Your task to perform on an android device: uninstall "TextNow: Call + Text Unlimited" Image 0: 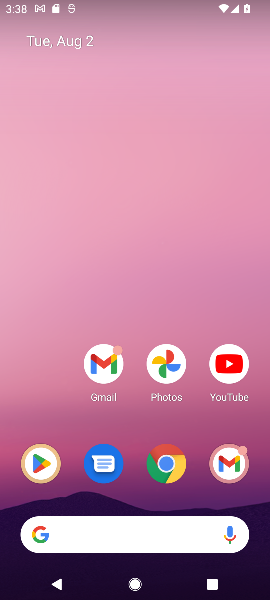
Step 0: press home button
Your task to perform on an android device: uninstall "TextNow: Call + Text Unlimited" Image 1: 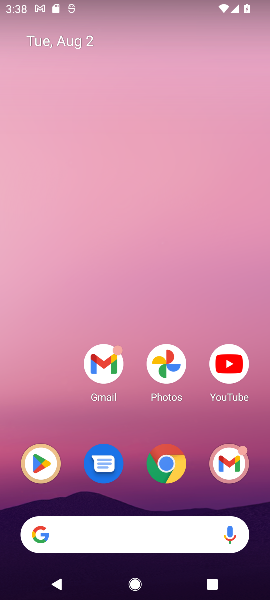
Step 1: click (41, 461)
Your task to perform on an android device: uninstall "TextNow: Call + Text Unlimited" Image 2: 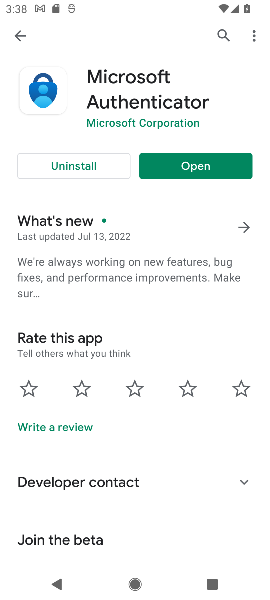
Step 2: click (221, 30)
Your task to perform on an android device: uninstall "TextNow: Call + Text Unlimited" Image 3: 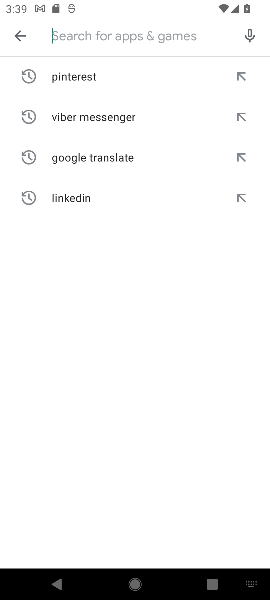
Step 3: type "TextNow: Call + Text Unlimited"
Your task to perform on an android device: uninstall "TextNow: Call + Text Unlimited" Image 4: 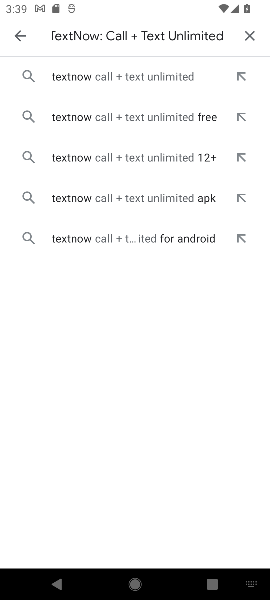
Step 4: click (176, 74)
Your task to perform on an android device: uninstall "TextNow: Call + Text Unlimited" Image 5: 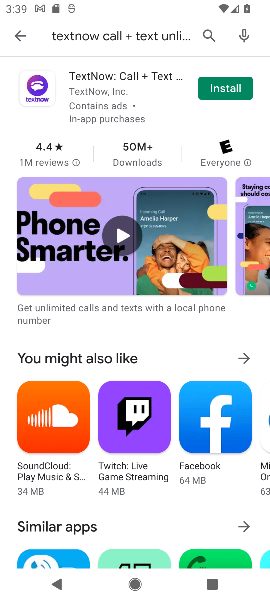
Step 5: task complete